Your task to perform on an android device: Clear all items from cart on amazon.com. Add "logitech g pro" to the cart on amazon.com, then select checkout. Image 0: 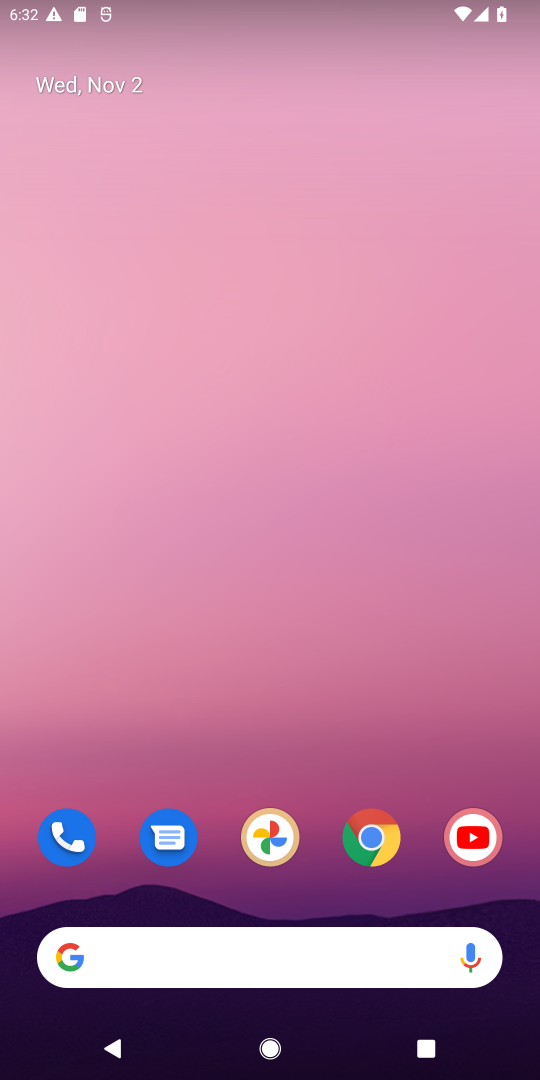
Step 0: click (381, 853)
Your task to perform on an android device: Clear all items from cart on amazon.com. Add "logitech g pro" to the cart on amazon.com, then select checkout. Image 1: 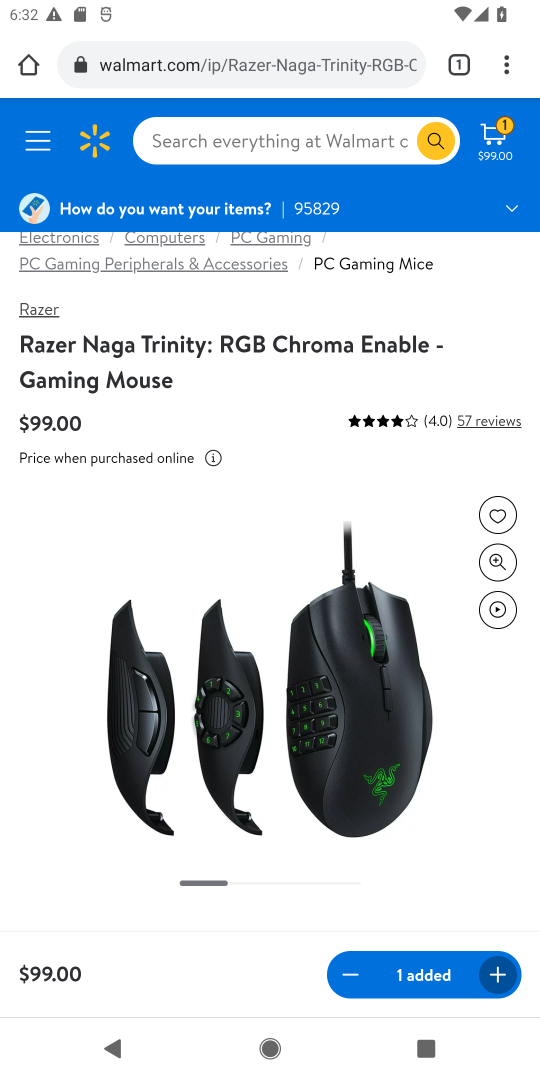
Step 1: click (238, 72)
Your task to perform on an android device: Clear all items from cart on amazon.com. Add "logitech g pro" to the cart on amazon.com, then select checkout. Image 2: 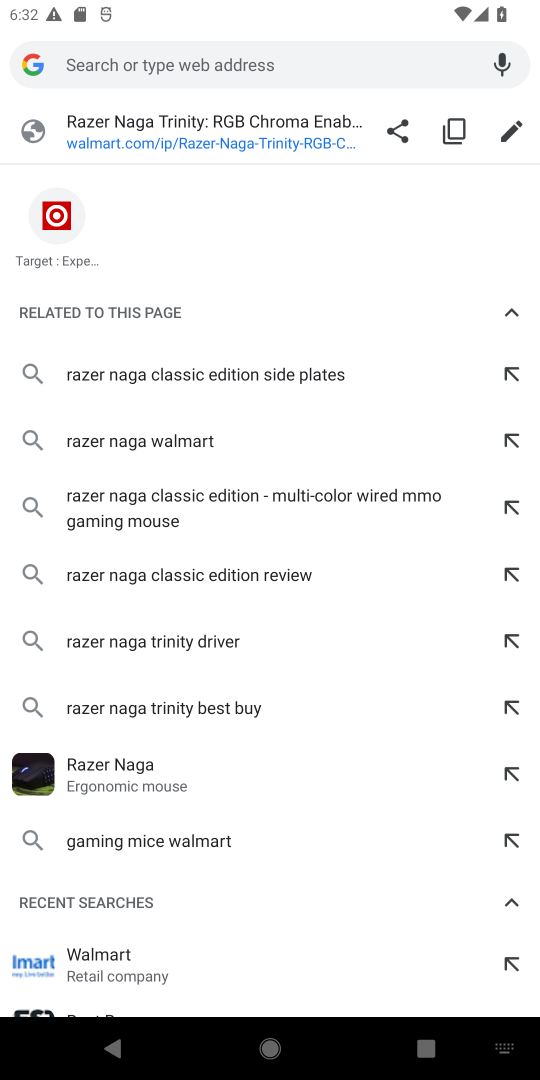
Step 2: type "amzzon"
Your task to perform on an android device: Clear all items from cart on amazon.com. Add "logitech g pro" to the cart on amazon.com, then select checkout. Image 3: 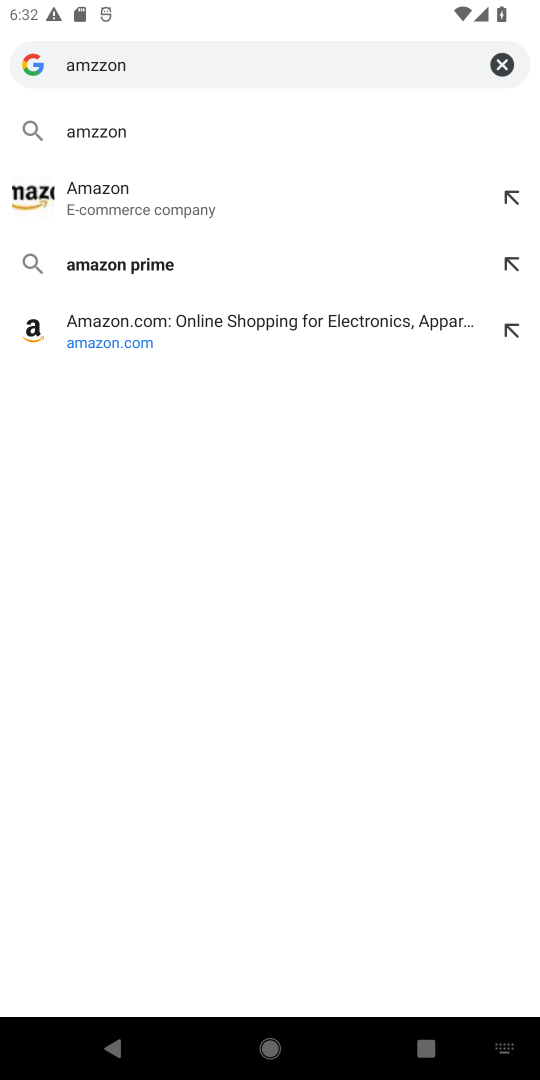
Step 3: click (96, 207)
Your task to perform on an android device: Clear all items from cart on amazon.com. Add "logitech g pro" to the cart on amazon.com, then select checkout. Image 4: 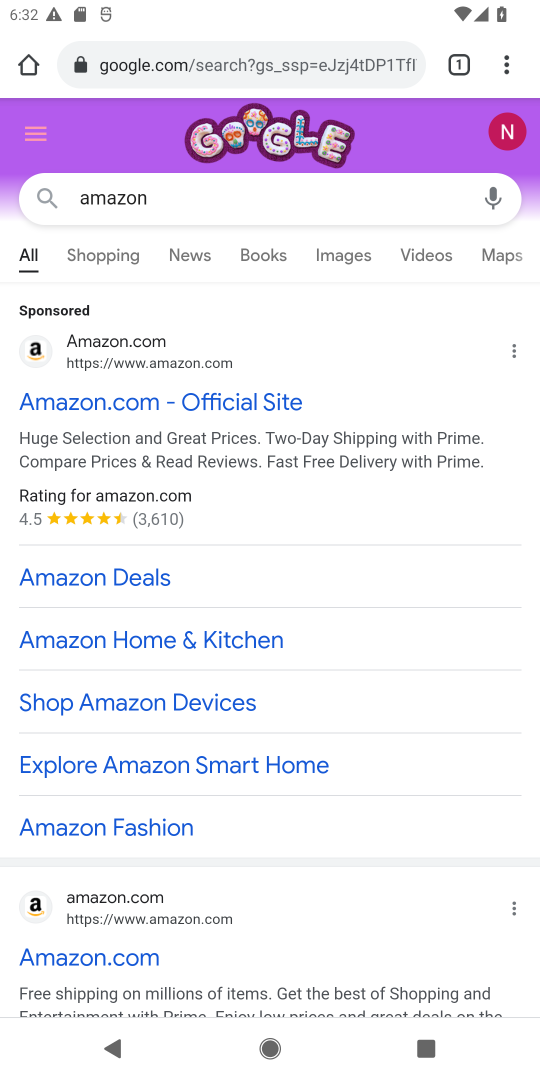
Step 4: click (31, 949)
Your task to perform on an android device: Clear all items from cart on amazon.com. Add "logitech g pro" to the cart on amazon.com, then select checkout. Image 5: 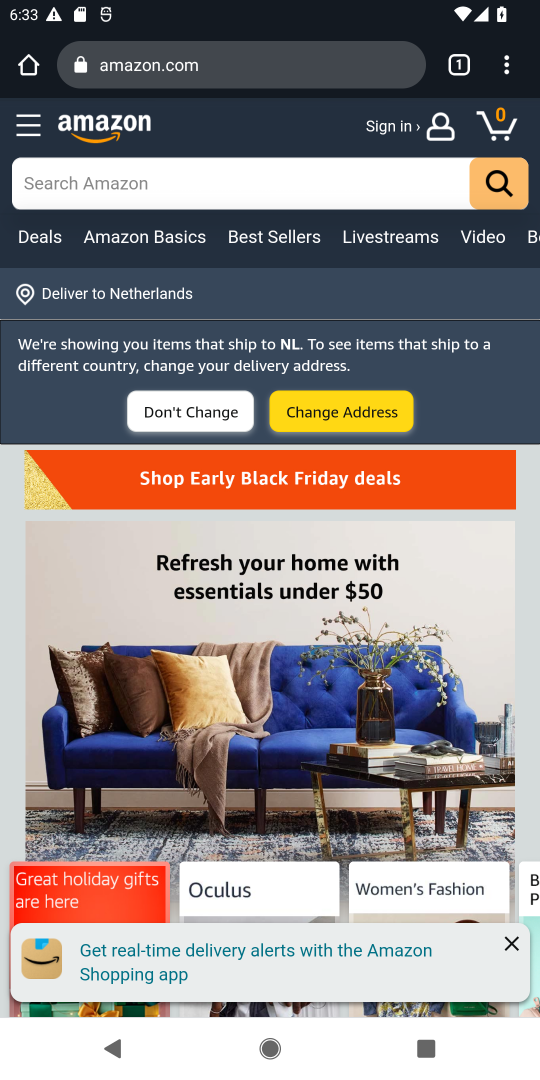
Step 5: click (269, 182)
Your task to perform on an android device: Clear all items from cart on amazon.com. Add "logitech g pro" to the cart on amazon.com, then select checkout. Image 6: 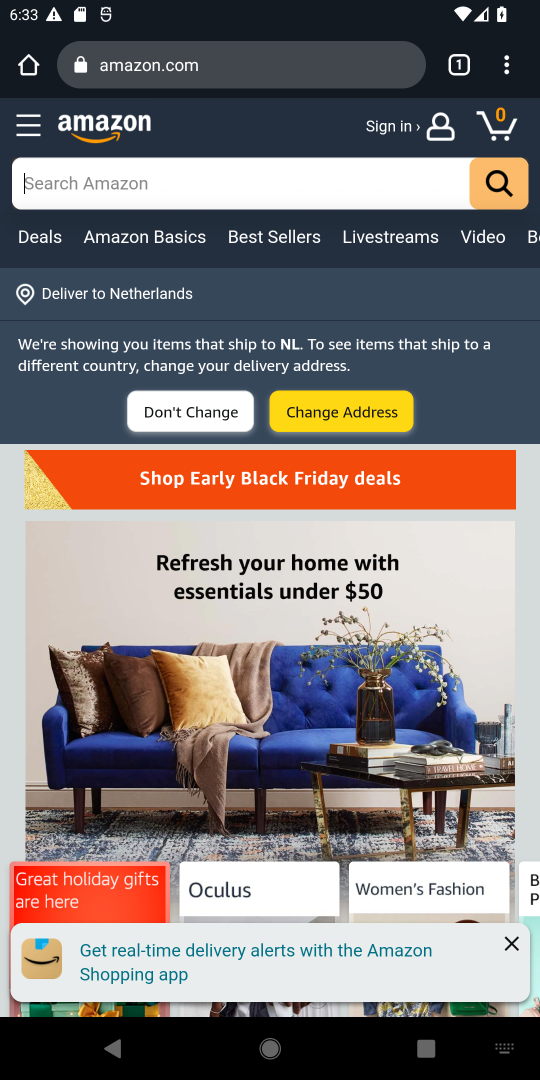
Step 6: type "logitech g pro"
Your task to perform on an android device: Clear all items from cart on amazon.com. Add "logitech g pro" to the cart on amazon.com, then select checkout. Image 7: 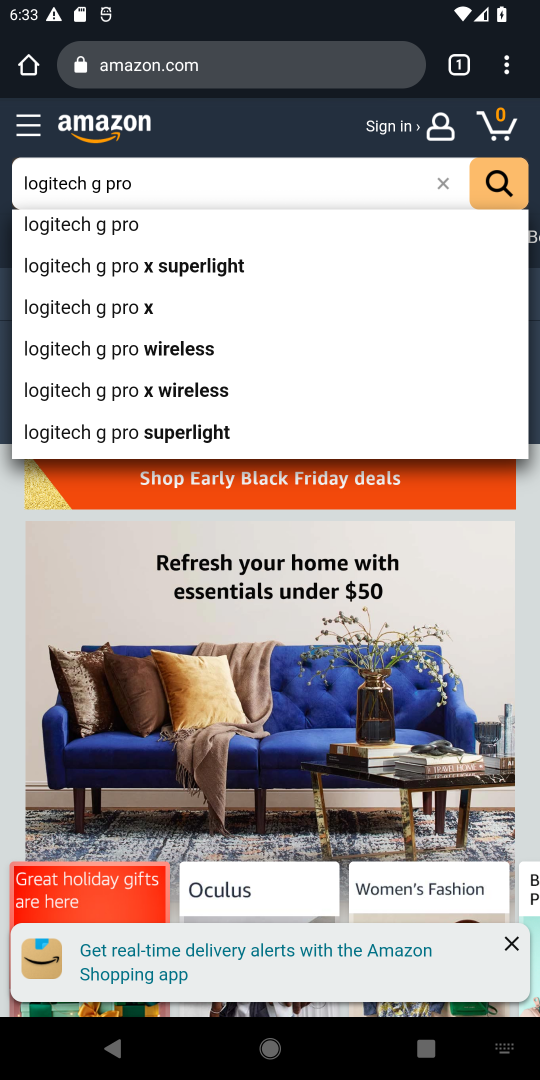
Step 7: click (79, 227)
Your task to perform on an android device: Clear all items from cart on amazon.com. Add "logitech g pro" to the cart on amazon.com, then select checkout. Image 8: 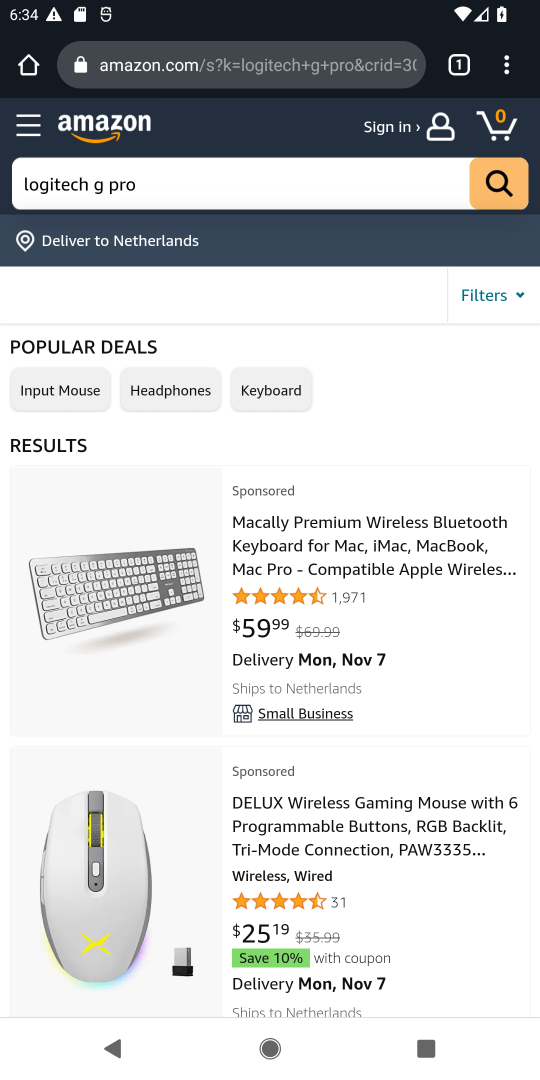
Step 8: drag from (305, 838) to (371, 542)
Your task to perform on an android device: Clear all items from cart on amazon.com. Add "logitech g pro" to the cart on amazon.com, then select checkout. Image 9: 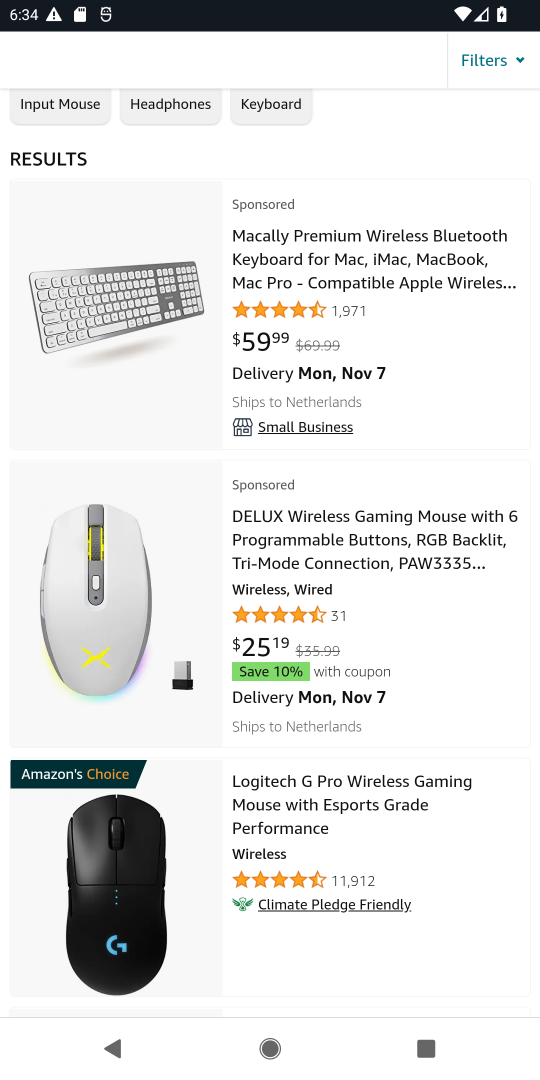
Step 9: click (302, 802)
Your task to perform on an android device: Clear all items from cart on amazon.com. Add "logitech g pro" to the cart on amazon.com, then select checkout. Image 10: 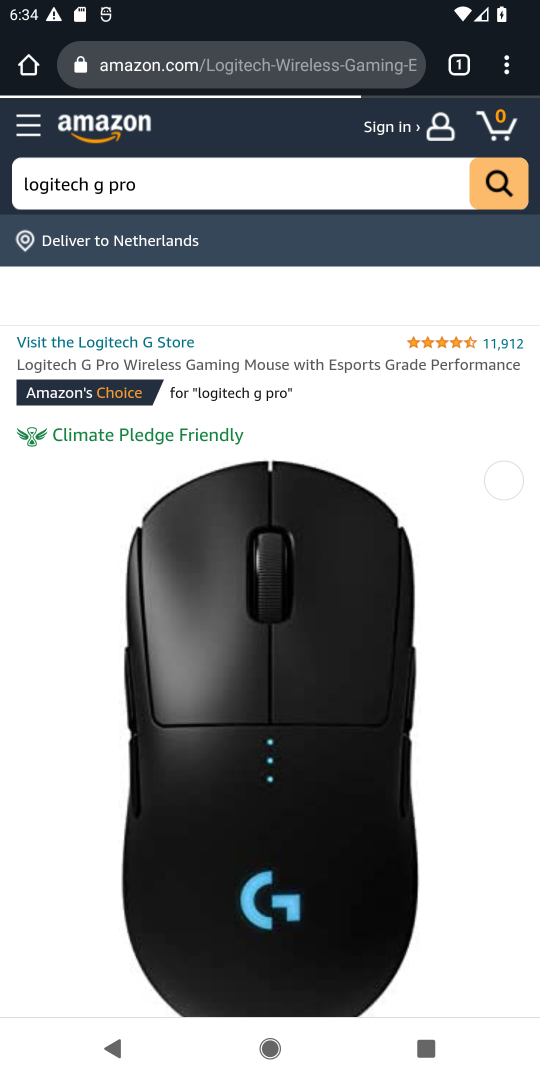
Step 10: drag from (255, 763) to (330, 422)
Your task to perform on an android device: Clear all items from cart on amazon.com. Add "logitech g pro" to the cart on amazon.com, then select checkout. Image 11: 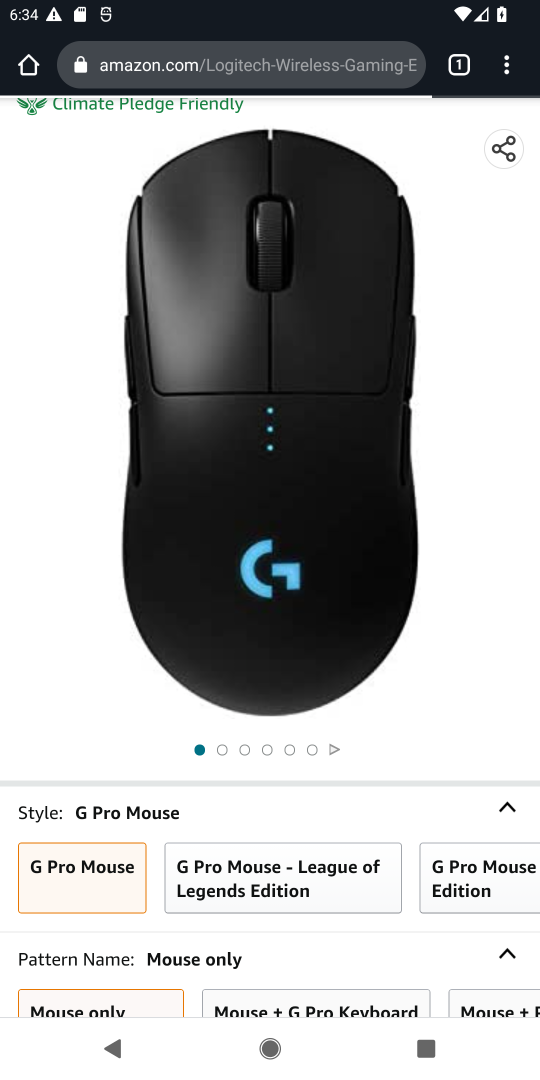
Step 11: drag from (215, 639) to (279, 393)
Your task to perform on an android device: Clear all items from cart on amazon.com. Add "logitech g pro" to the cart on amazon.com, then select checkout. Image 12: 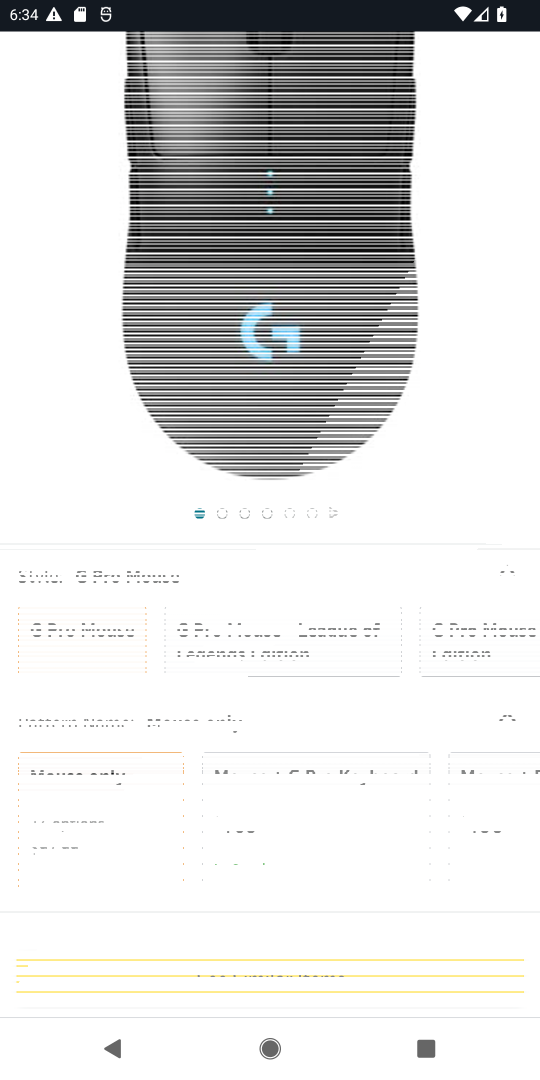
Step 12: drag from (231, 829) to (313, 426)
Your task to perform on an android device: Clear all items from cart on amazon.com. Add "logitech g pro" to the cart on amazon.com, then select checkout. Image 13: 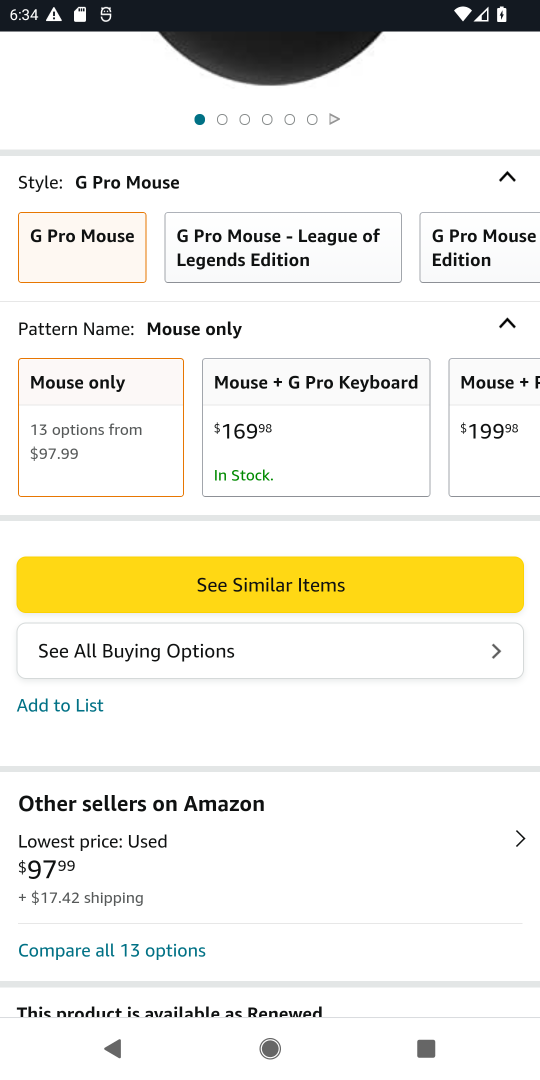
Step 13: drag from (216, 860) to (437, 265)
Your task to perform on an android device: Clear all items from cart on amazon.com. Add "logitech g pro" to the cart on amazon.com, then select checkout. Image 14: 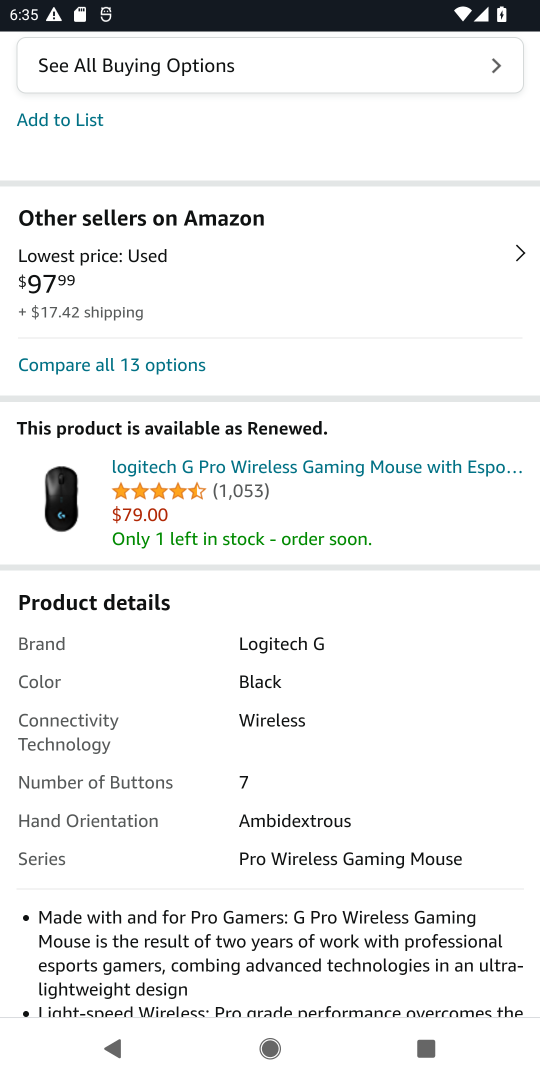
Step 14: drag from (293, 833) to (360, 24)
Your task to perform on an android device: Clear all items from cart on amazon.com. Add "logitech g pro" to the cart on amazon.com, then select checkout. Image 15: 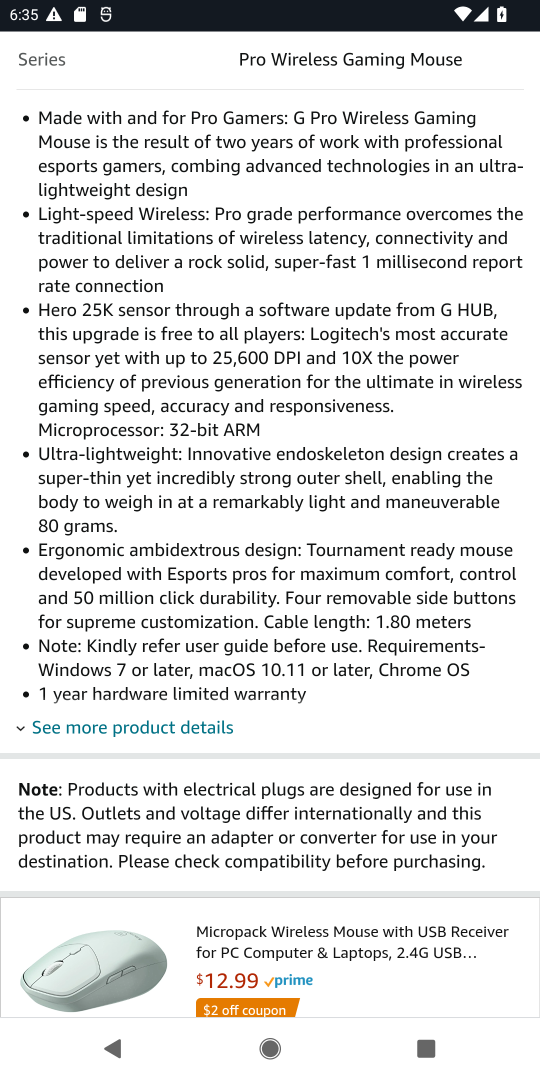
Step 15: drag from (267, 731) to (305, 1071)
Your task to perform on an android device: Clear all items from cart on amazon.com. Add "logitech g pro" to the cart on amazon.com, then select checkout. Image 16: 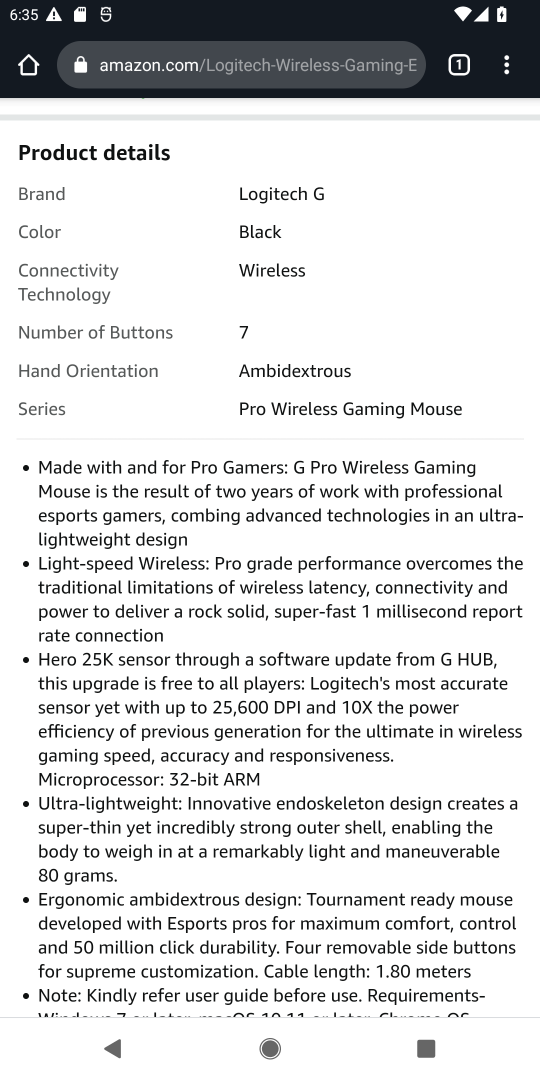
Step 16: drag from (307, 677) to (303, 1078)
Your task to perform on an android device: Clear all items from cart on amazon.com. Add "logitech g pro" to the cart on amazon.com, then select checkout. Image 17: 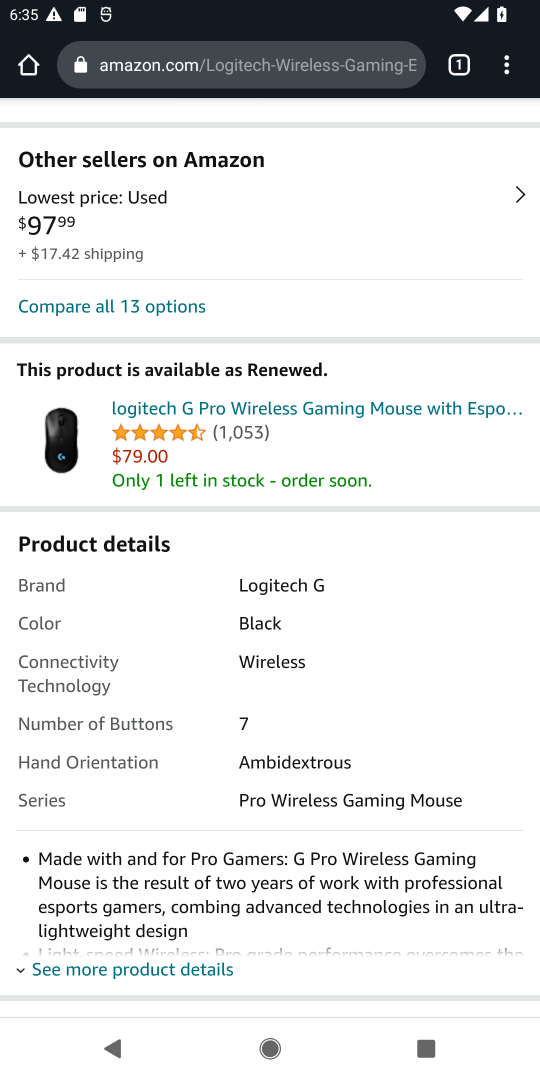
Step 17: drag from (312, 750) to (269, 1079)
Your task to perform on an android device: Clear all items from cart on amazon.com. Add "logitech g pro" to the cart on amazon.com, then select checkout. Image 18: 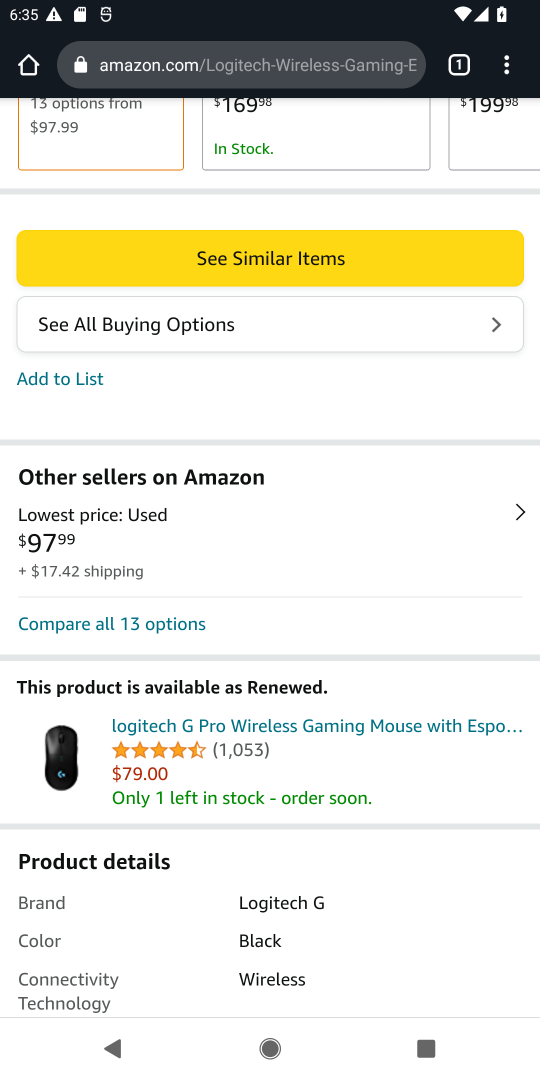
Step 18: drag from (323, 539) to (333, 1044)
Your task to perform on an android device: Clear all items from cart on amazon.com. Add "logitech g pro" to the cart on amazon.com, then select checkout. Image 19: 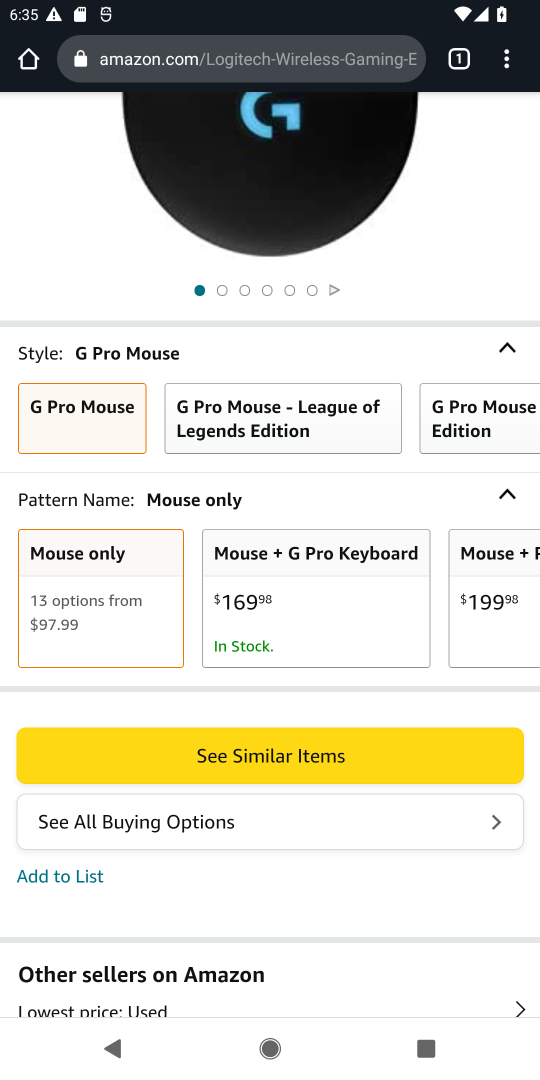
Step 19: drag from (306, 644) to (282, 1070)
Your task to perform on an android device: Clear all items from cart on amazon.com. Add "logitech g pro" to the cart on amazon.com, then select checkout. Image 20: 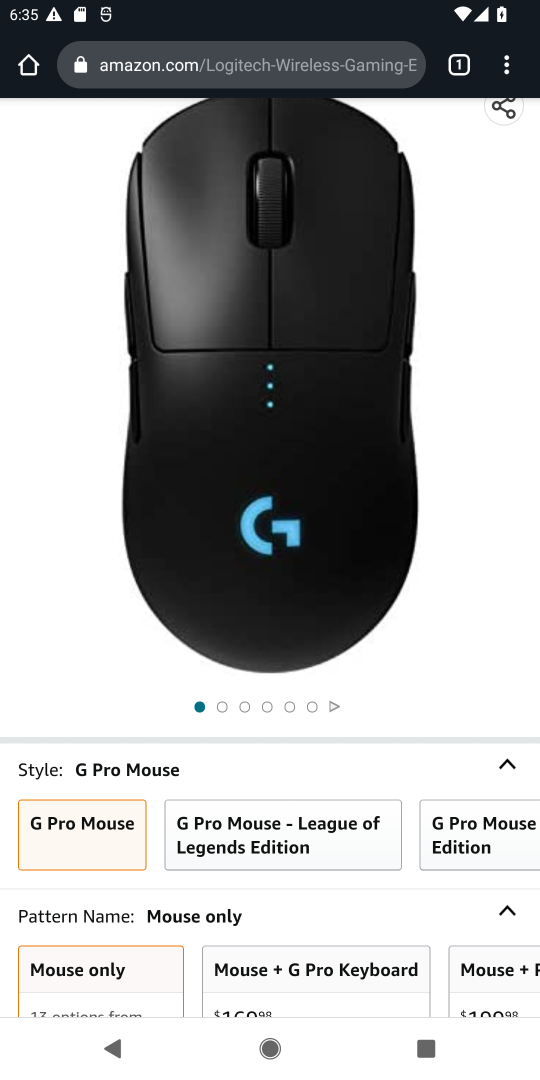
Step 20: press back button
Your task to perform on an android device: Clear all items from cart on amazon.com. Add "logitech g pro" to the cart on amazon.com, then select checkout. Image 21: 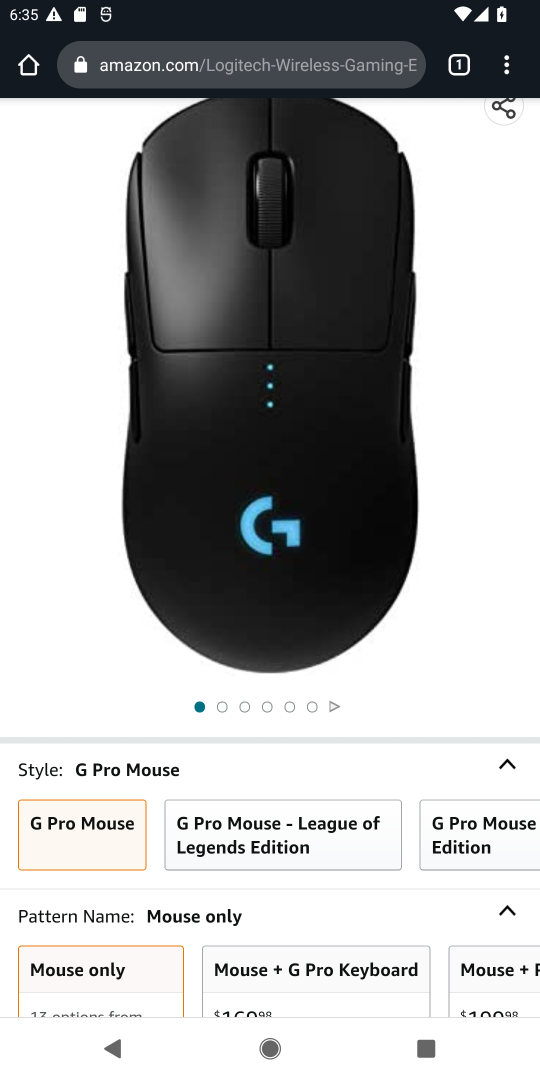
Step 21: drag from (282, 1070) to (9, 890)
Your task to perform on an android device: Clear all items from cart on amazon.com. Add "logitech g pro" to the cart on amazon.com, then select checkout. Image 22: 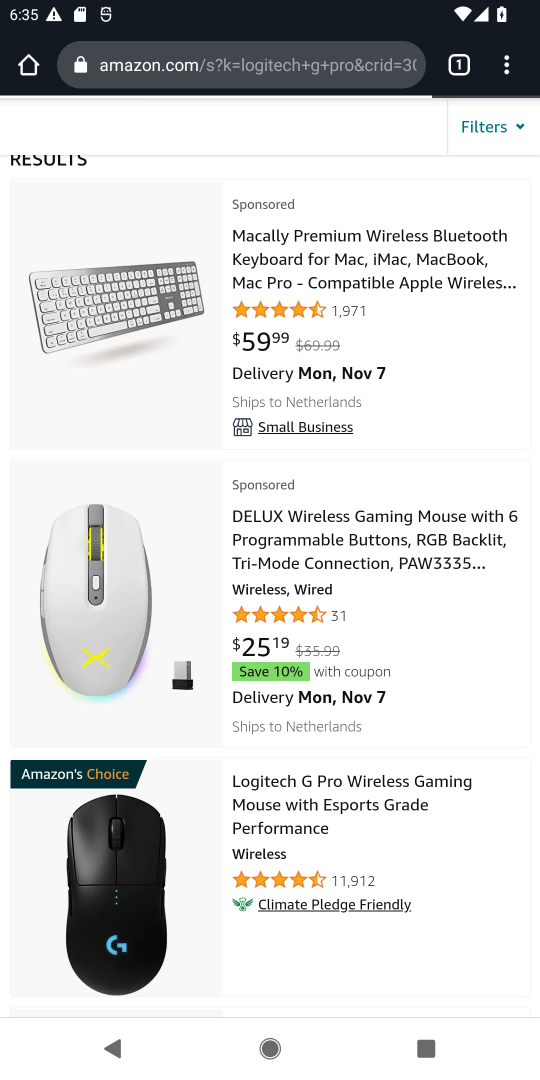
Step 22: drag from (275, 640) to (275, 571)
Your task to perform on an android device: Clear all items from cart on amazon.com. Add "logitech g pro" to the cart on amazon.com, then select checkout. Image 23: 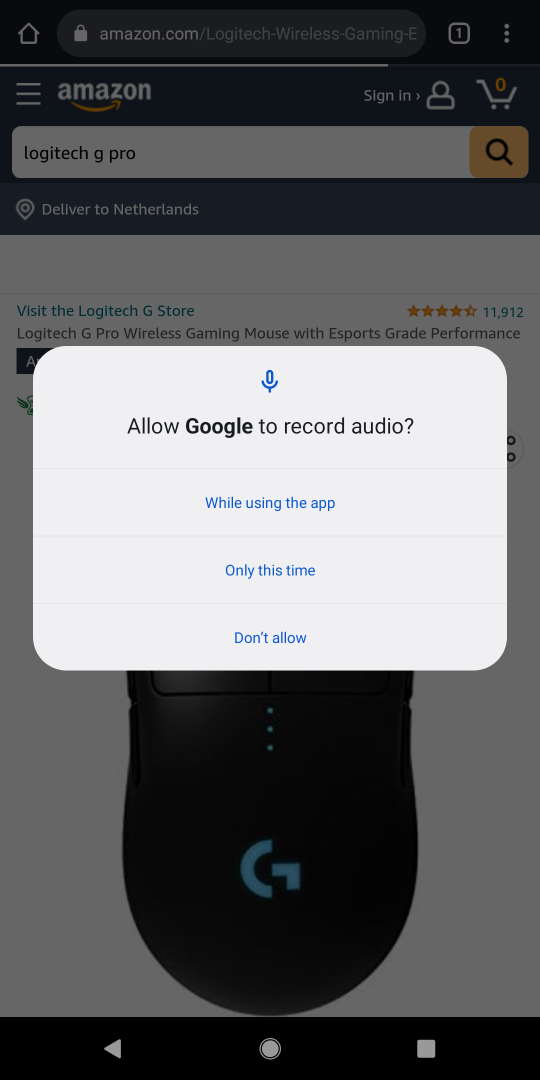
Step 23: click (290, 506)
Your task to perform on an android device: Clear all items from cart on amazon.com. Add "logitech g pro" to the cart on amazon.com, then select checkout. Image 24: 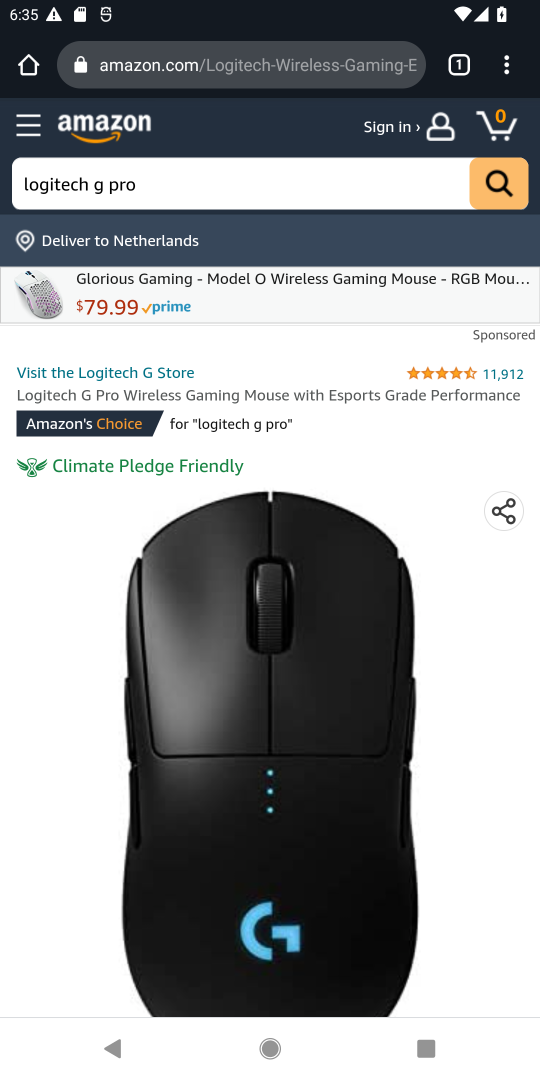
Step 24: press back button
Your task to perform on an android device: Clear all items from cart on amazon.com. Add "logitech g pro" to the cart on amazon.com, then select checkout. Image 25: 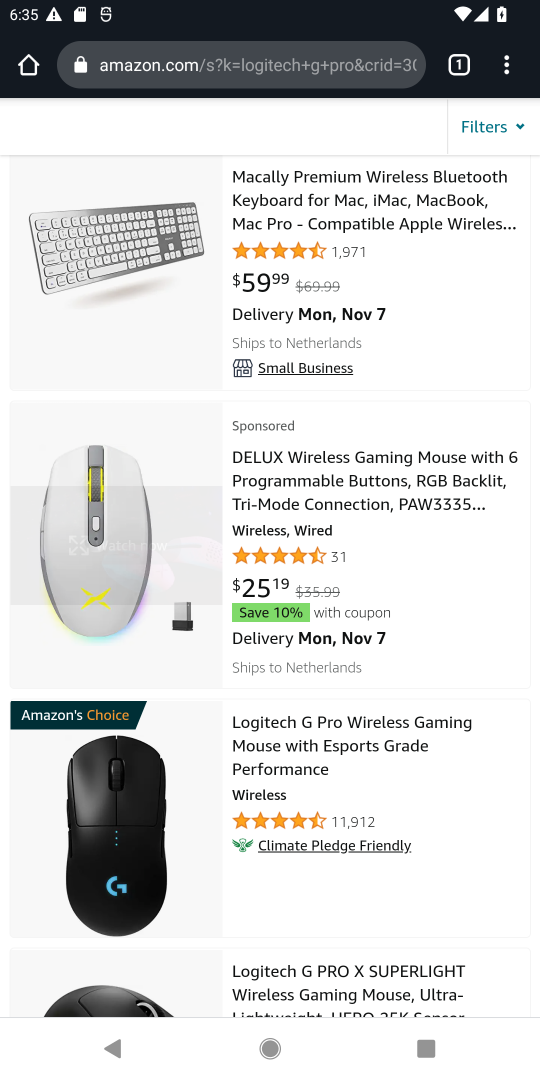
Step 25: click (327, 971)
Your task to perform on an android device: Clear all items from cart on amazon.com. Add "logitech g pro" to the cart on amazon.com, then select checkout. Image 26: 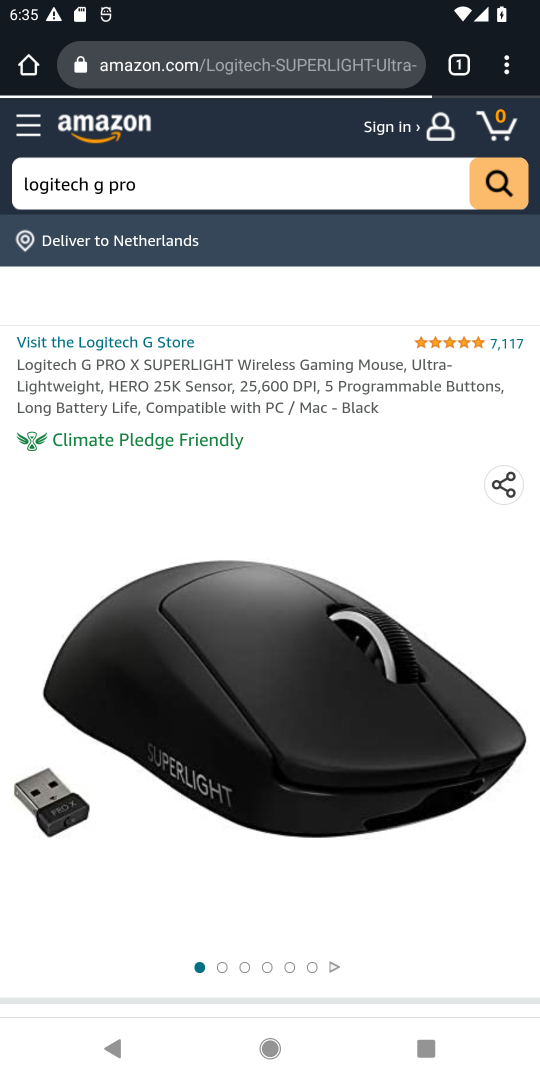
Step 26: drag from (282, 797) to (276, 232)
Your task to perform on an android device: Clear all items from cart on amazon.com. Add "logitech g pro" to the cart on amazon.com, then select checkout. Image 27: 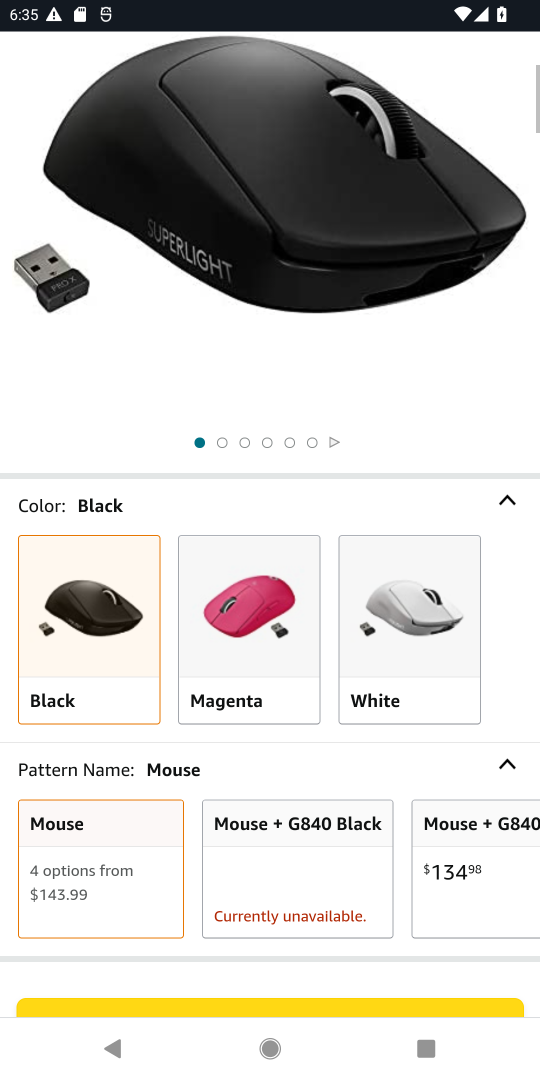
Step 27: drag from (237, 852) to (244, 332)
Your task to perform on an android device: Clear all items from cart on amazon.com. Add "logitech g pro" to the cart on amazon.com, then select checkout. Image 28: 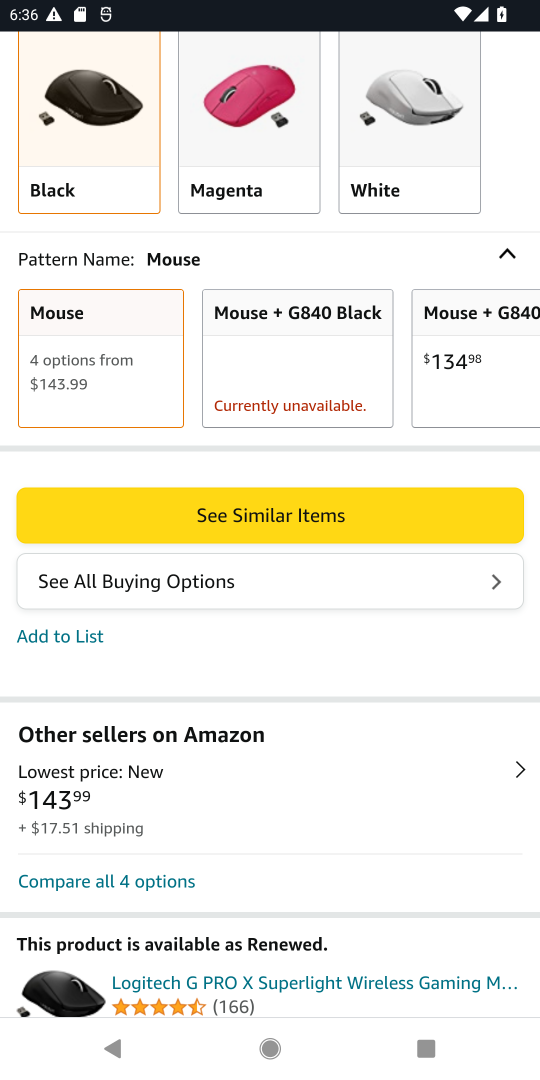
Step 28: drag from (208, 788) to (187, 527)
Your task to perform on an android device: Clear all items from cart on amazon.com. Add "logitech g pro" to the cart on amazon.com, then select checkout. Image 29: 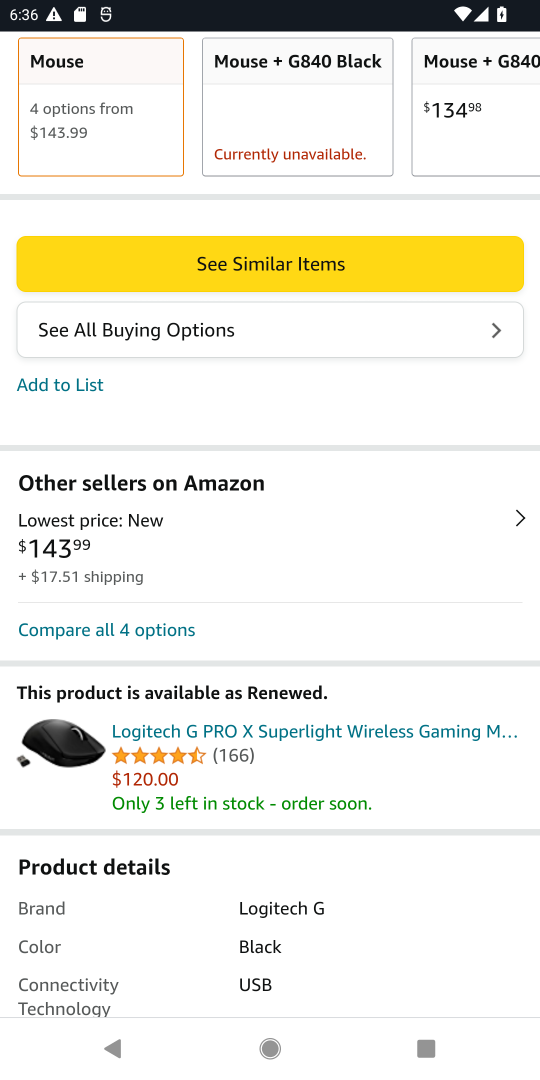
Step 29: drag from (229, 845) to (221, 322)
Your task to perform on an android device: Clear all items from cart on amazon.com. Add "logitech g pro" to the cart on amazon.com, then select checkout. Image 30: 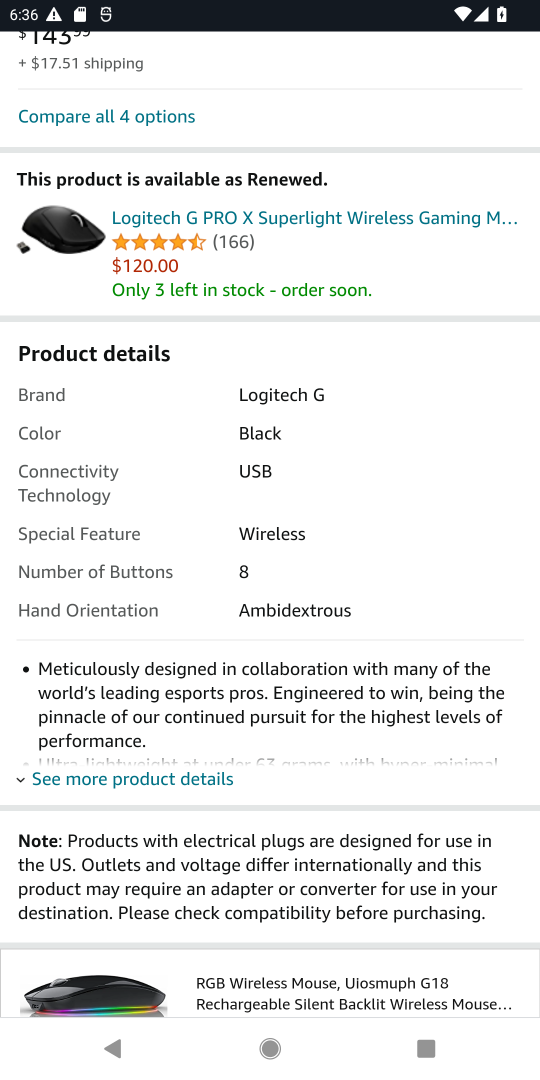
Step 30: drag from (214, 795) to (212, 312)
Your task to perform on an android device: Clear all items from cart on amazon.com. Add "logitech g pro" to the cart on amazon.com, then select checkout. Image 31: 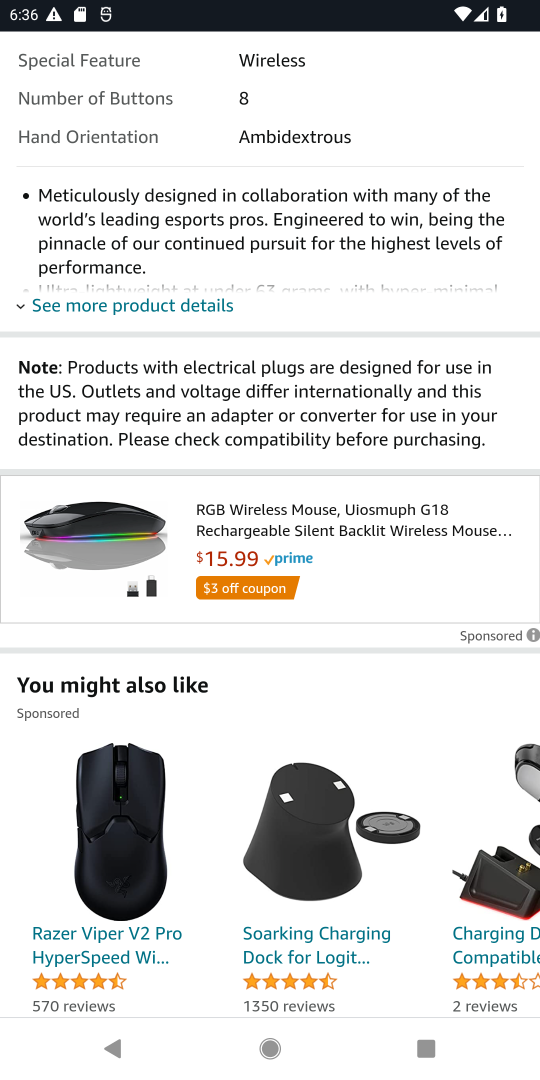
Step 31: drag from (467, 779) to (433, 269)
Your task to perform on an android device: Clear all items from cart on amazon.com. Add "logitech g pro" to the cart on amazon.com, then select checkout. Image 32: 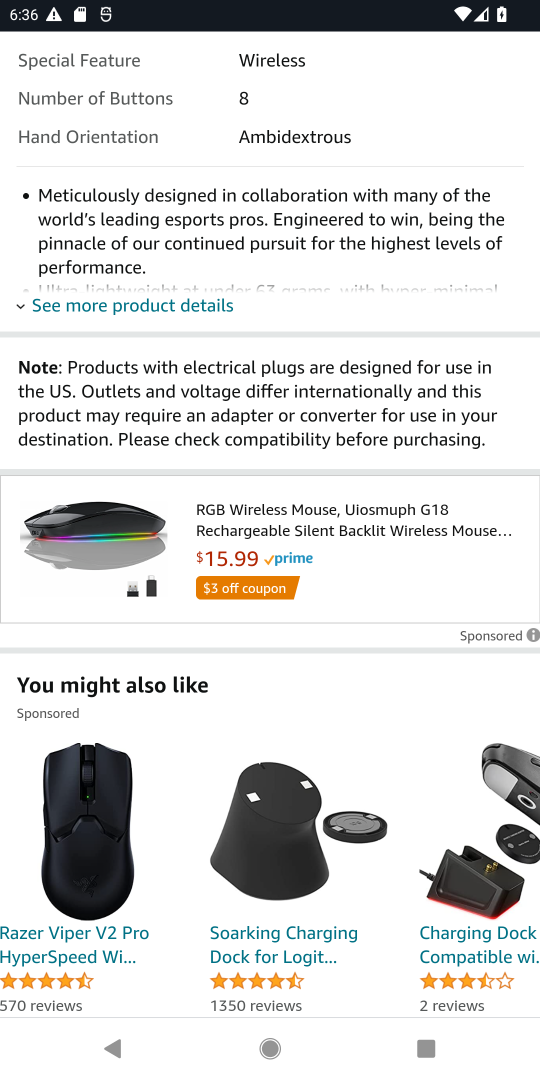
Step 32: drag from (319, 411) to (332, 239)
Your task to perform on an android device: Clear all items from cart on amazon.com. Add "logitech g pro" to the cart on amazon.com, then select checkout. Image 33: 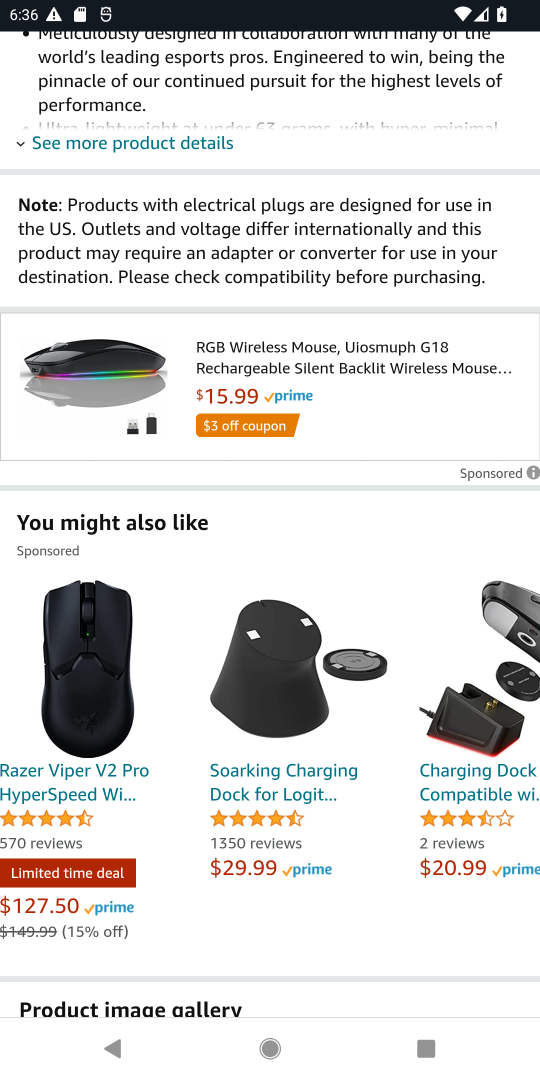
Step 33: drag from (260, 783) to (292, 281)
Your task to perform on an android device: Clear all items from cart on amazon.com. Add "logitech g pro" to the cart on amazon.com, then select checkout. Image 34: 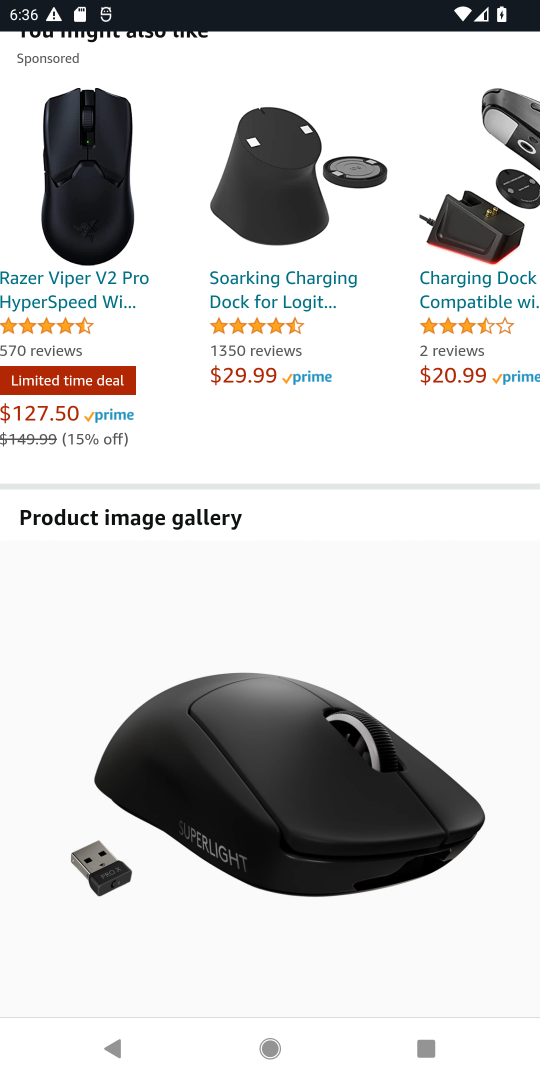
Step 34: drag from (271, 745) to (441, 1075)
Your task to perform on an android device: Clear all items from cart on amazon.com. Add "logitech g pro" to the cart on amazon.com, then select checkout. Image 35: 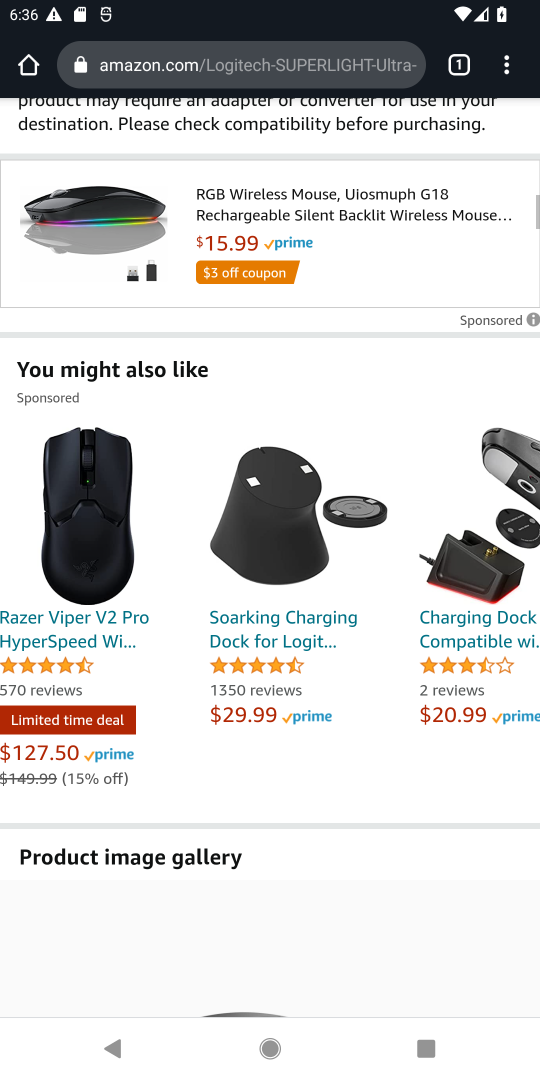
Step 35: drag from (317, 517) to (295, 961)
Your task to perform on an android device: Clear all items from cart on amazon.com. Add "logitech g pro" to the cart on amazon.com, then select checkout. Image 36: 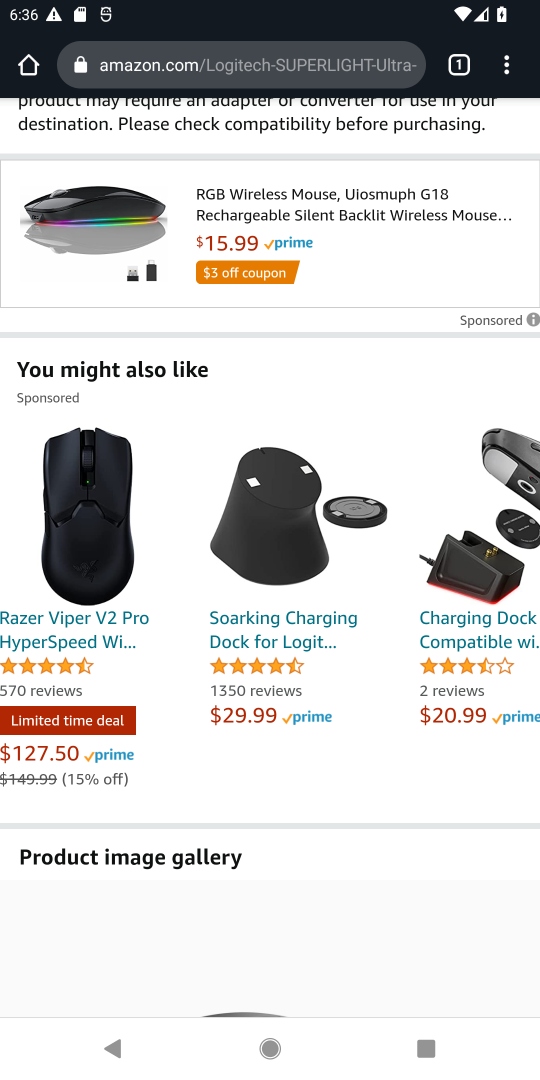
Step 36: drag from (294, 495) to (412, 739)
Your task to perform on an android device: Clear all items from cart on amazon.com. Add "logitech g pro" to the cart on amazon.com, then select checkout. Image 37: 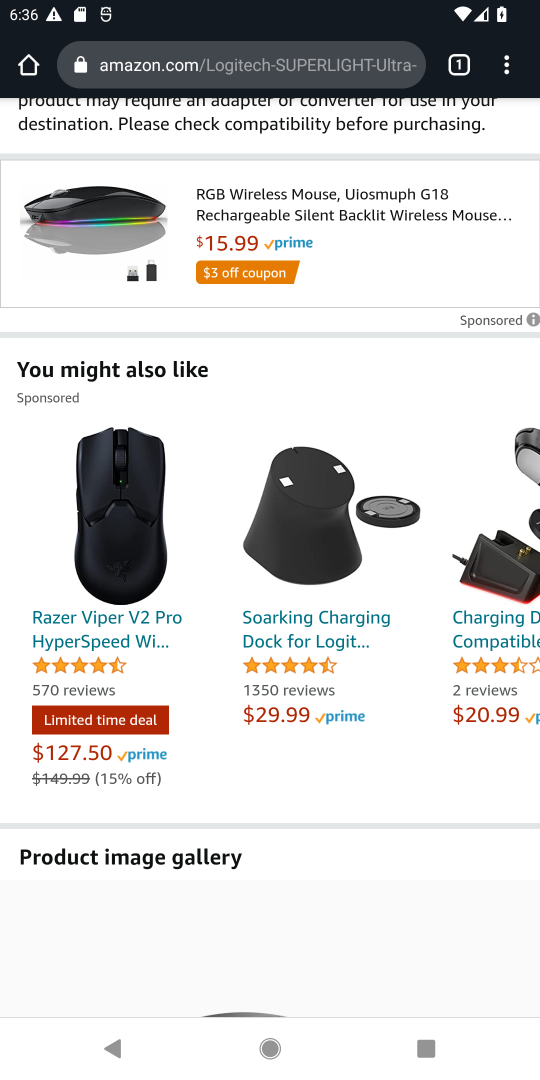
Step 37: drag from (266, 369) to (375, 1051)
Your task to perform on an android device: Clear all items from cart on amazon.com. Add "logitech g pro" to the cart on amazon.com, then select checkout. Image 38: 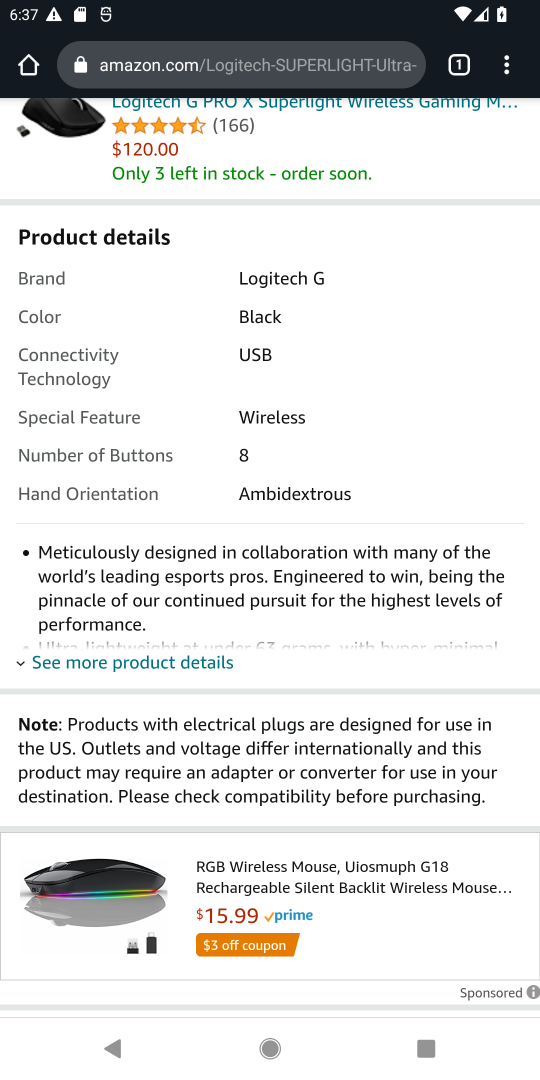
Step 38: drag from (194, 245) to (164, 673)
Your task to perform on an android device: Clear all items from cart on amazon.com. Add "logitech g pro" to the cart on amazon.com, then select checkout. Image 39: 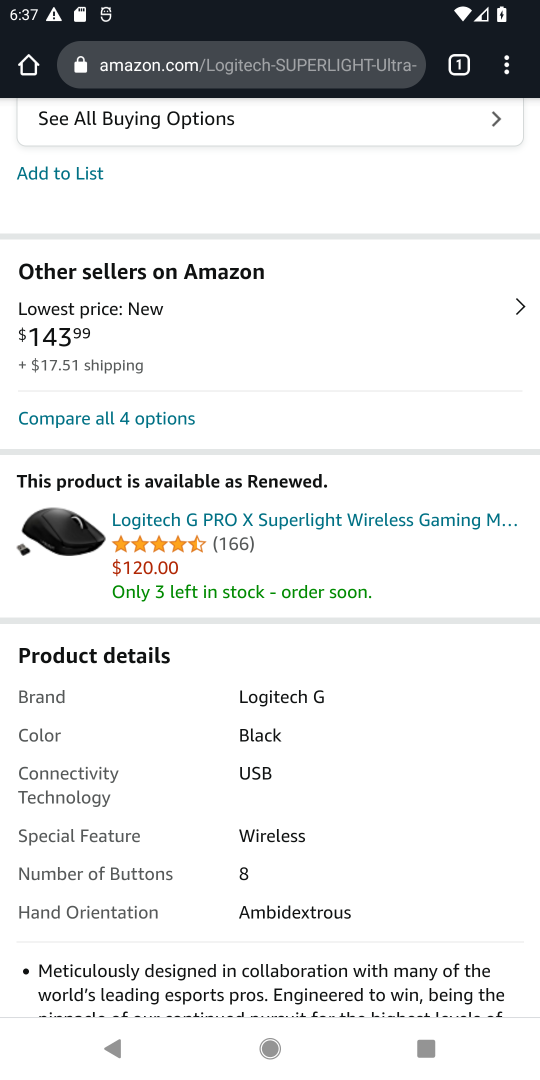
Step 39: click (187, 523)
Your task to perform on an android device: Clear all items from cart on amazon.com. Add "logitech g pro" to the cart on amazon.com, then select checkout. Image 40: 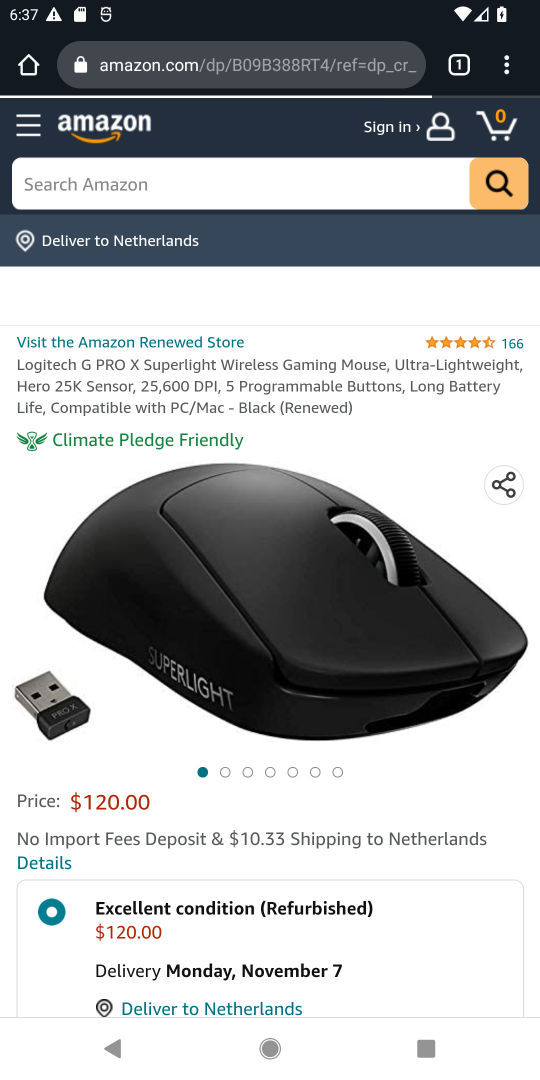
Step 40: drag from (272, 738) to (303, 393)
Your task to perform on an android device: Clear all items from cart on amazon.com. Add "logitech g pro" to the cart on amazon.com, then select checkout. Image 41: 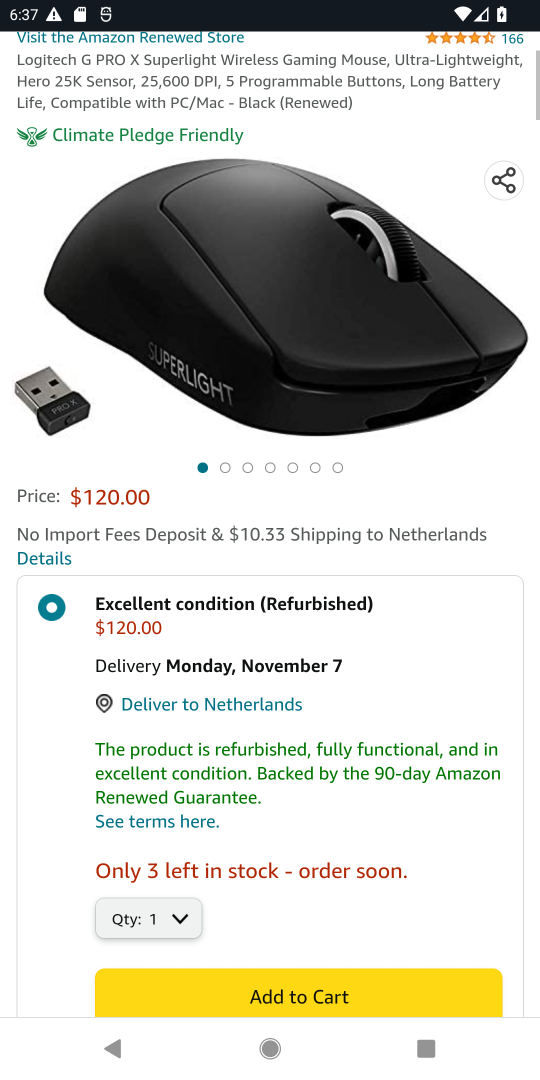
Step 41: drag from (277, 864) to (294, 755)
Your task to perform on an android device: Clear all items from cart on amazon.com. Add "logitech g pro" to the cart on amazon.com, then select checkout. Image 42: 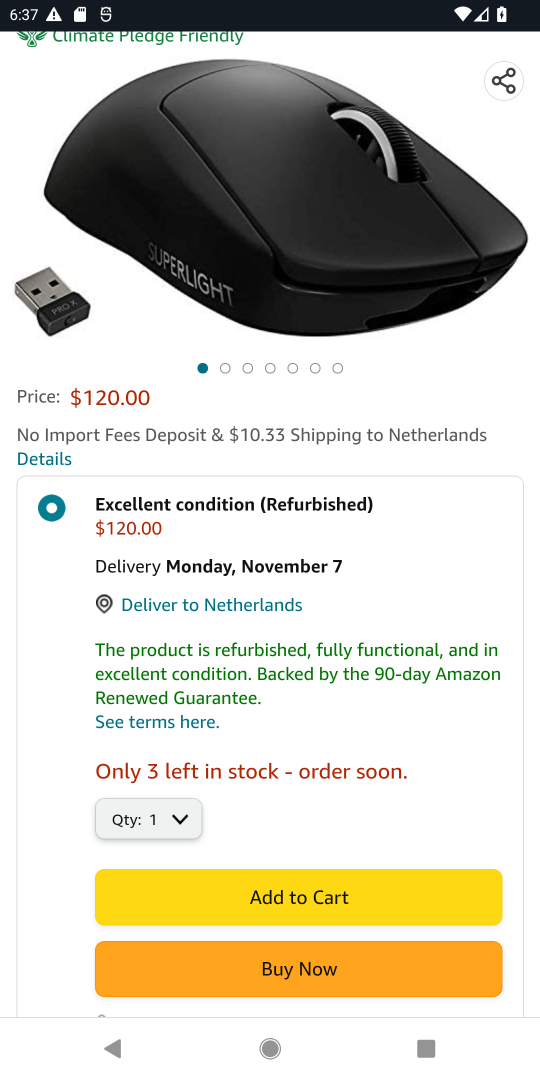
Step 42: click (306, 906)
Your task to perform on an android device: Clear all items from cart on amazon.com. Add "logitech g pro" to the cart on amazon.com, then select checkout. Image 43: 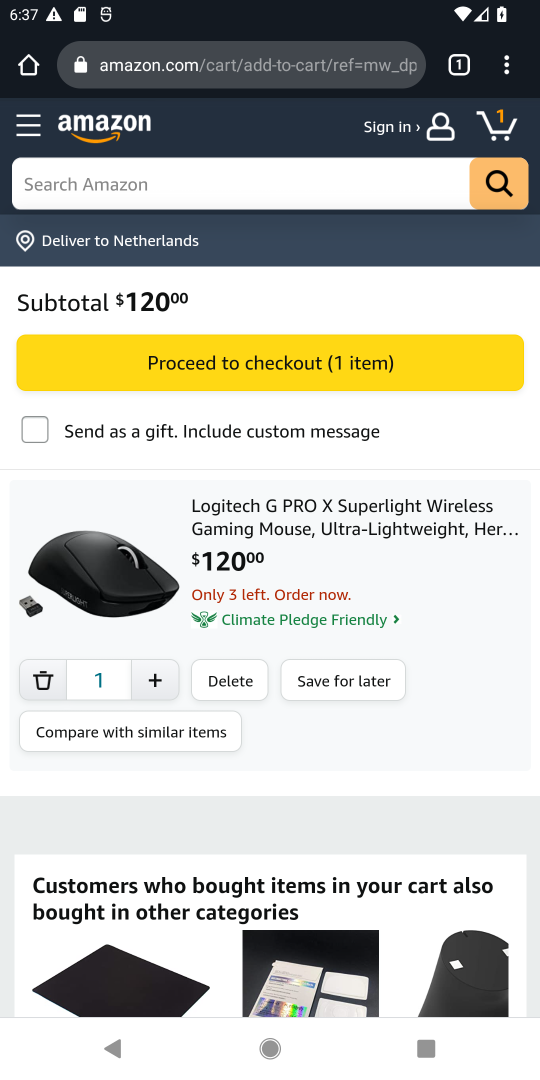
Step 43: click (508, 122)
Your task to perform on an android device: Clear all items from cart on amazon.com. Add "logitech g pro" to the cart on amazon.com, then select checkout. Image 44: 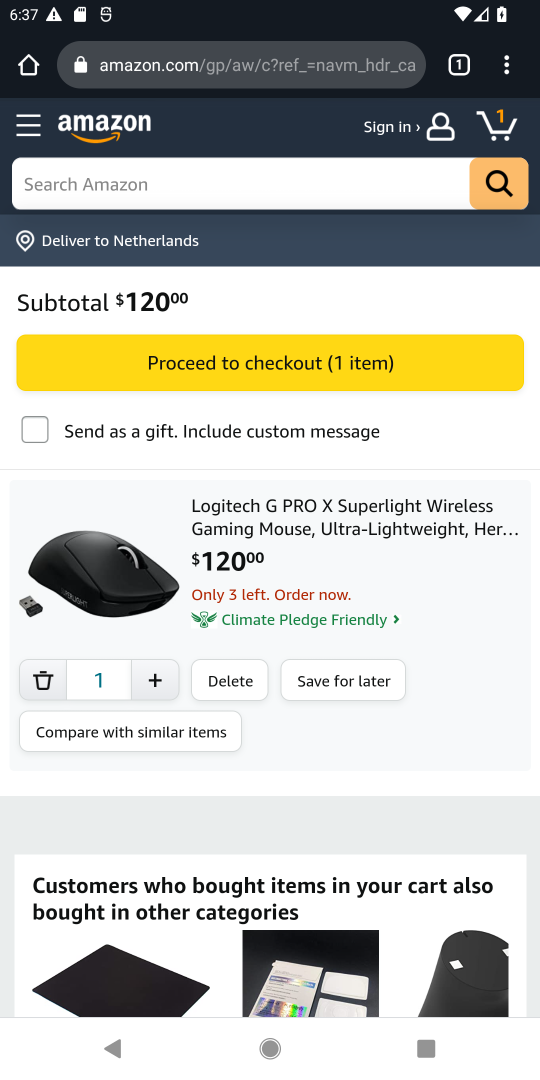
Step 44: click (257, 362)
Your task to perform on an android device: Clear all items from cart on amazon.com. Add "logitech g pro" to the cart on amazon.com, then select checkout. Image 45: 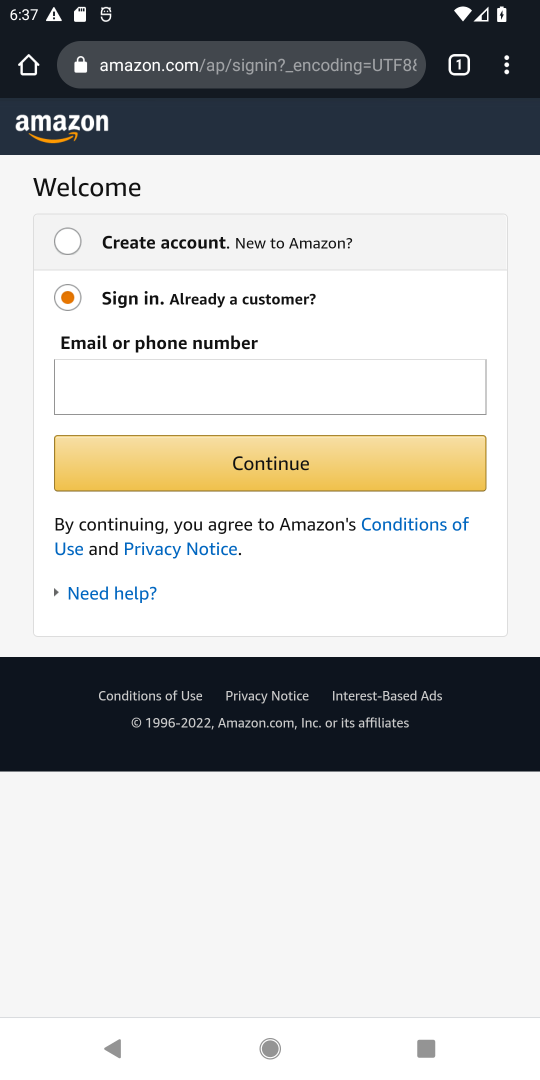
Step 45: task complete